Your task to perform on an android device: manage bookmarks in the chrome app Image 0: 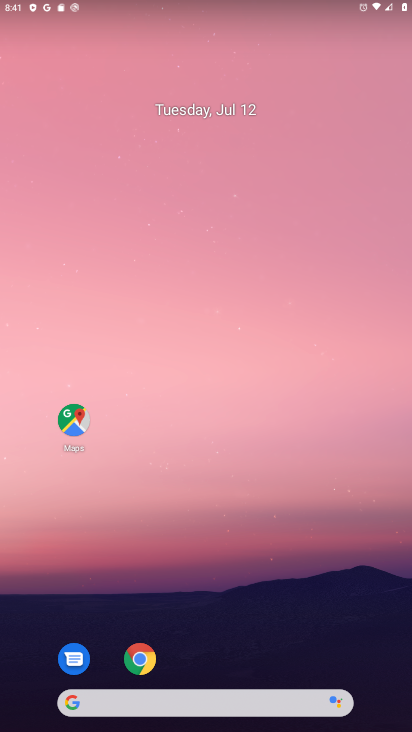
Step 0: drag from (313, 714) to (184, 98)
Your task to perform on an android device: manage bookmarks in the chrome app Image 1: 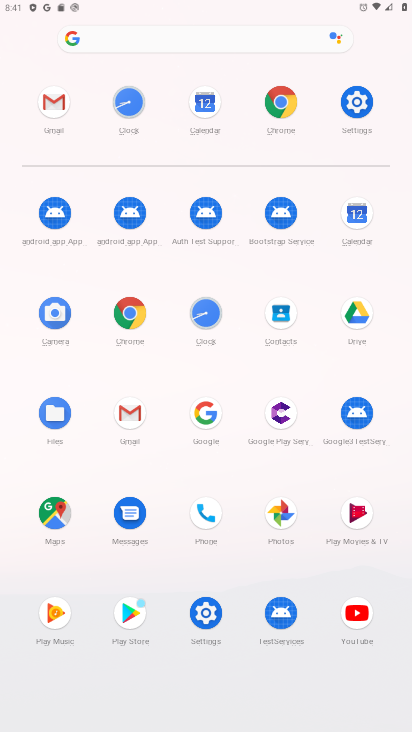
Step 1: click (281, 105)
Your task to perform on an android device: manage bookmarks in the chrome app Image 2: 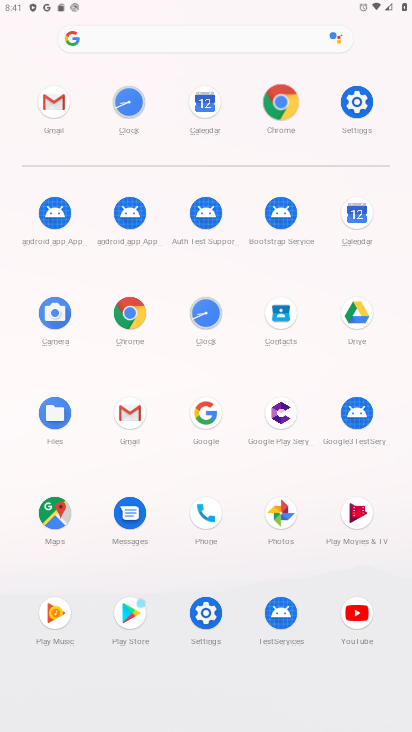
Step 2: click (281, 106)
Your task to perform on an android device: manage bookmarks in the chrome app Image 3: 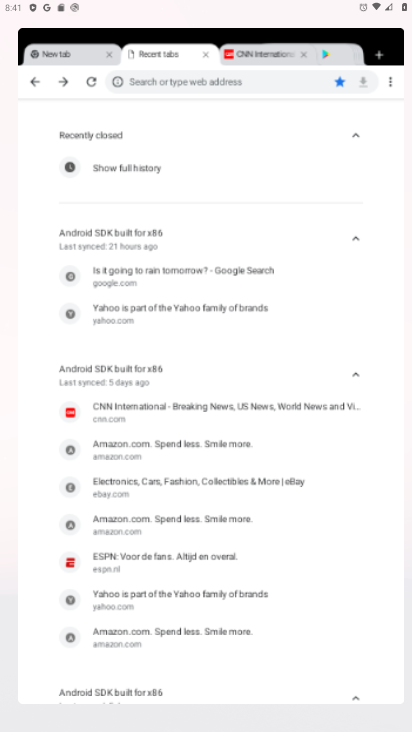
Step 3: click (281, 106)
Your task to perform on an android device: manage bookmarks in the chrome app Image 4: 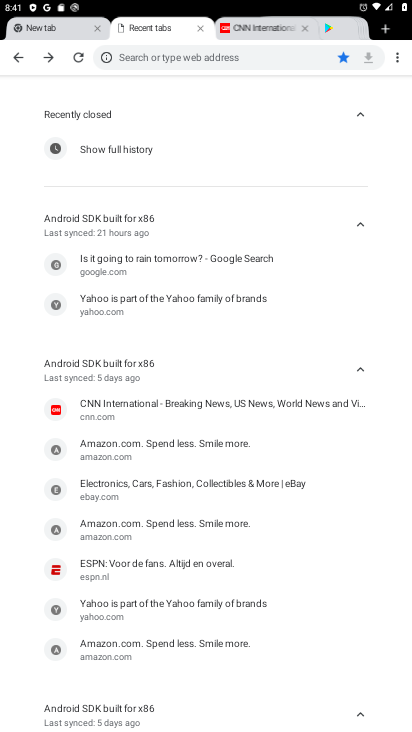
Step 4: press back button
Your task to perform on an android device: manage bookmarks in the chrome app Image 5: 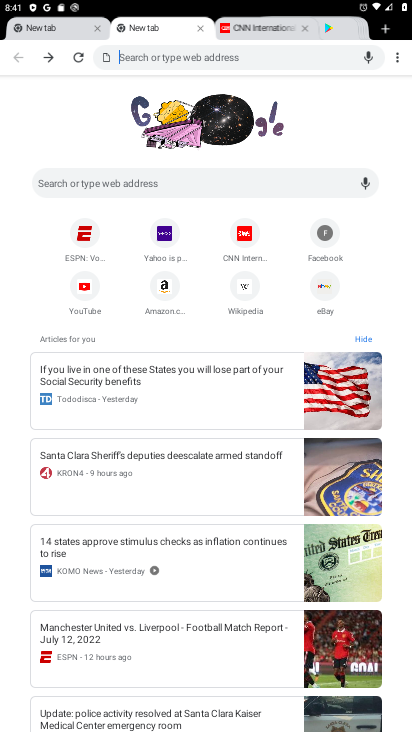
Step 5: click (393, 54)
Your task to perform on an android device: manage bookmarks in the chrome app Image 6: 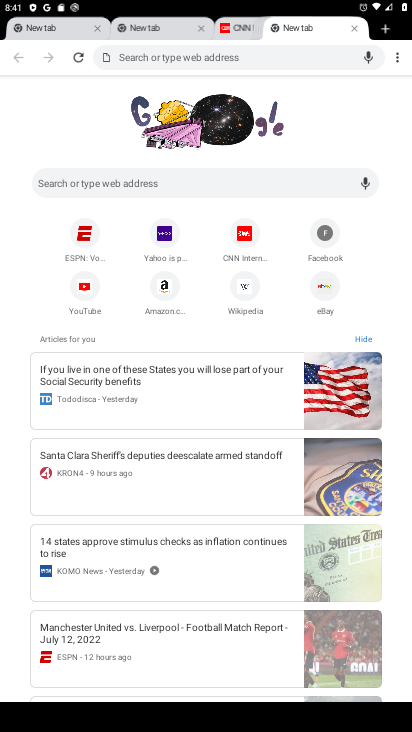
Step 6: drag from (393, 54) to (232, 281)
Your task to perform on an android device: manage bookmarks in the chrome app Image 7: 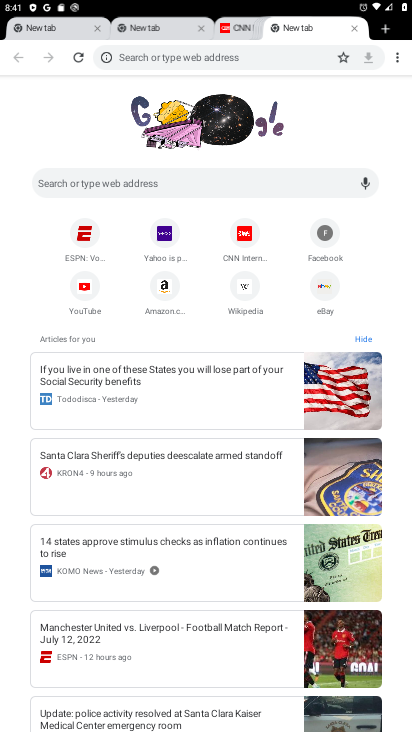
Step 7: drag from (397, 55) to (293, 116)
Your task to perform on an android device: manage bookmarks in the chrome app Image 8: 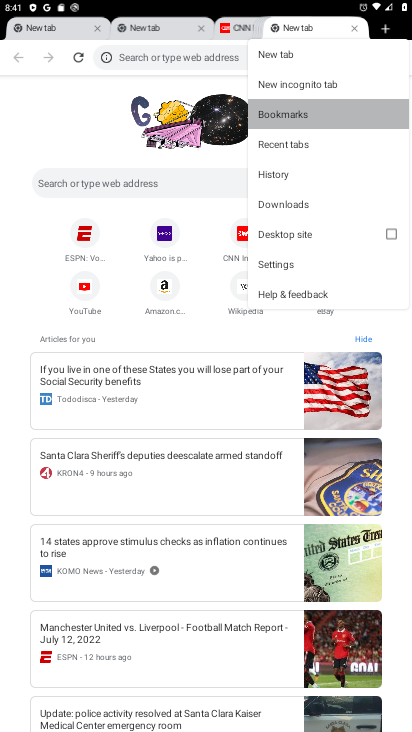
Step 8: click (293, 116)
Your task to perform on an android device: manage bookmarks in the chrome app Image 9: 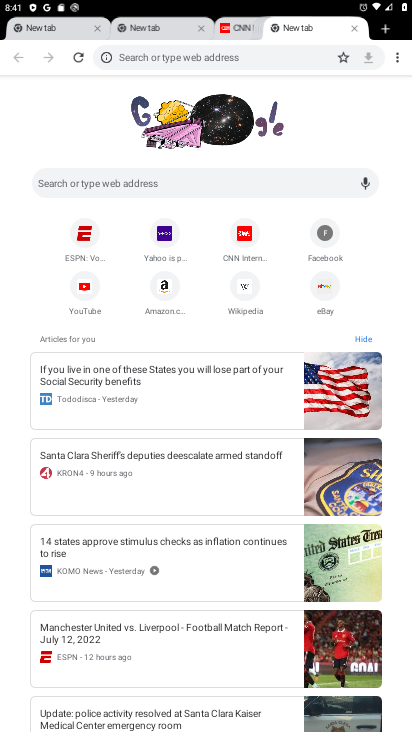
Step 9: click (293, 116)
Your task to perform on an android device: manage bookmarks in the chrome app Image 10: 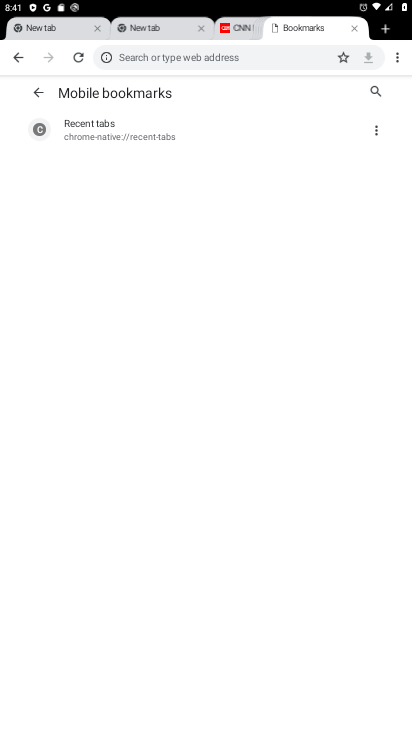
Step 10: task complete